Your task to perform on an android device: Open settings on Google Maps Image 0: 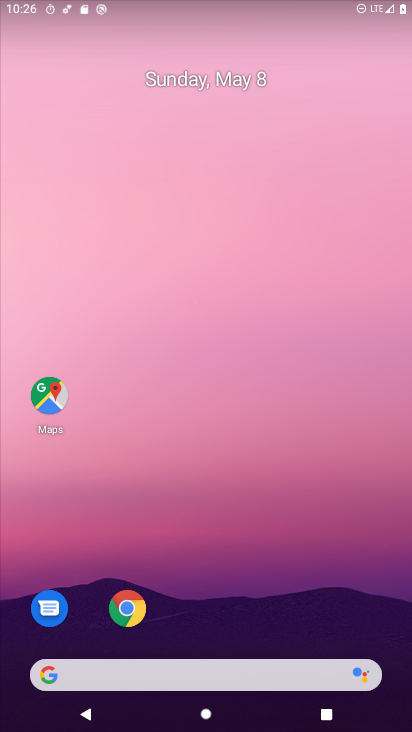
Step 0: click (50, 391)
Your task to perform on an android device: Open settings on Google Maps Image 1: 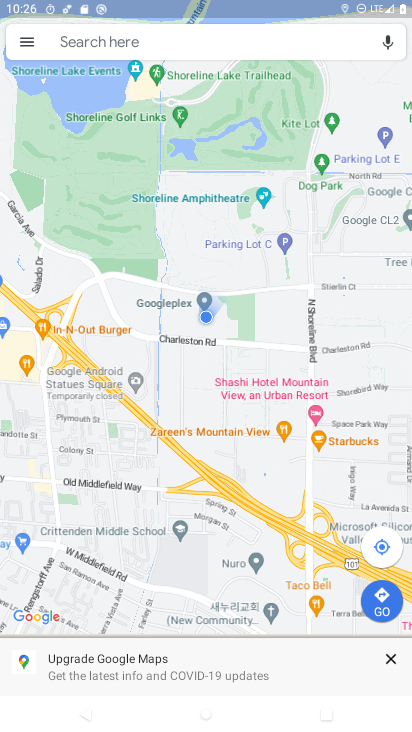
Step 1: click (27, 40)
Your task to perform on an android device: Open settings on Google Maps Image 2: 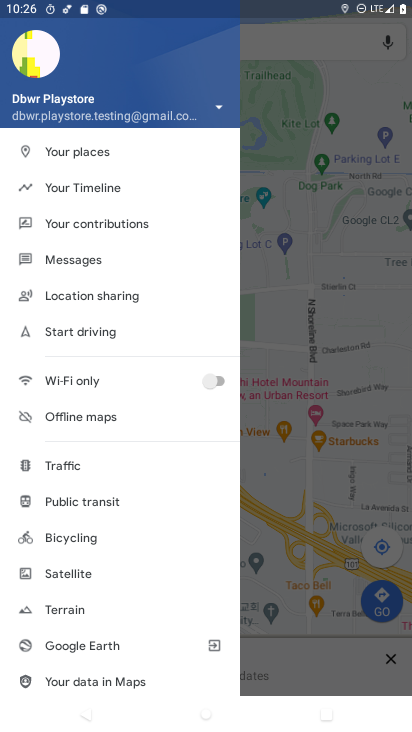
Step 2: drag from (108, 604) to (165, 255)
Your task to perform on an android device: Open settings on Google Maps Image 3: 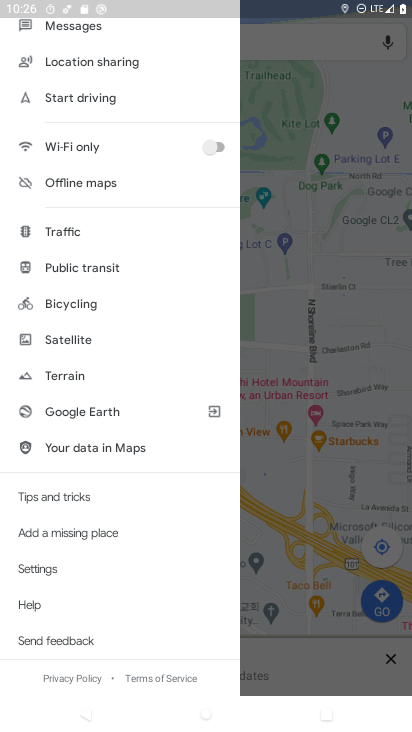
Step 3: click (41, 564)
Your task to perform on an android device: Open settings on Google Maps Image 4: 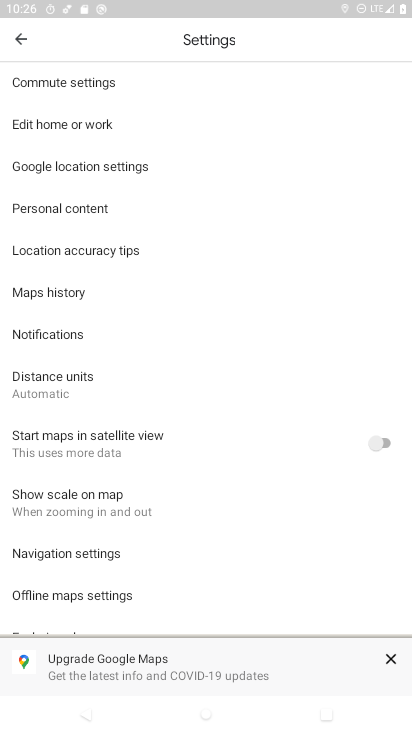
Step 4: task complete